Your task to perform on an android device: Go to battery settings Image 0: 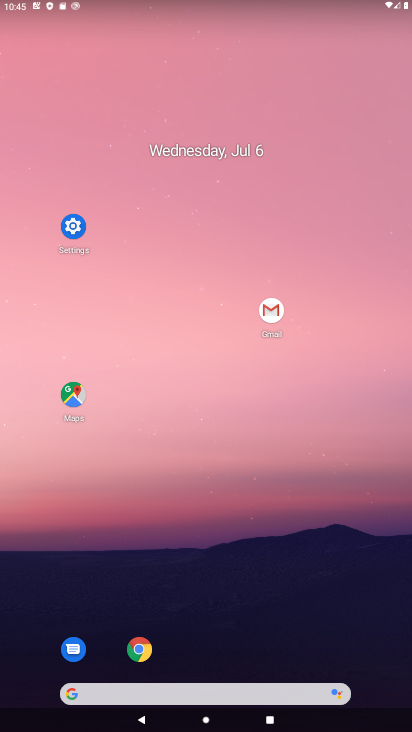
Step 0: click (75, 233)
Your task to perform on an android device: Go to battery settings Image 1: 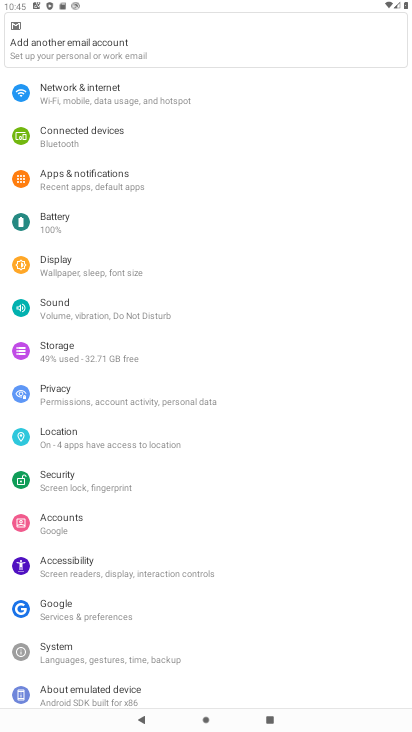
Step 1: click (101, 218)
Your task to perform on an android device: Go to battery settings Image 2: 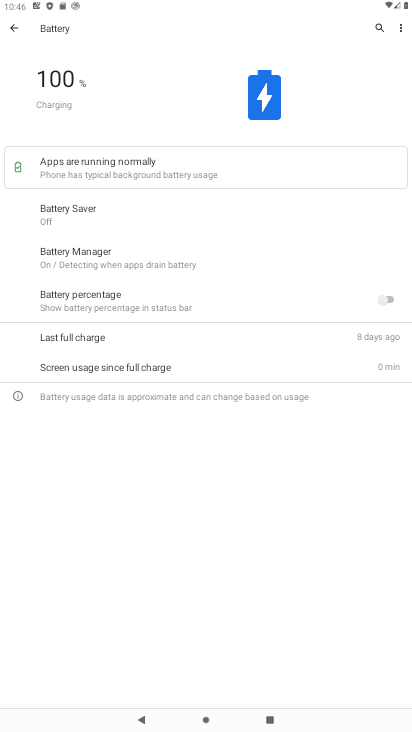
Step 2: task complete